Your task to perform on an android device: Add "apple airpods pro" to the cart on bestbuy.com Image 0: 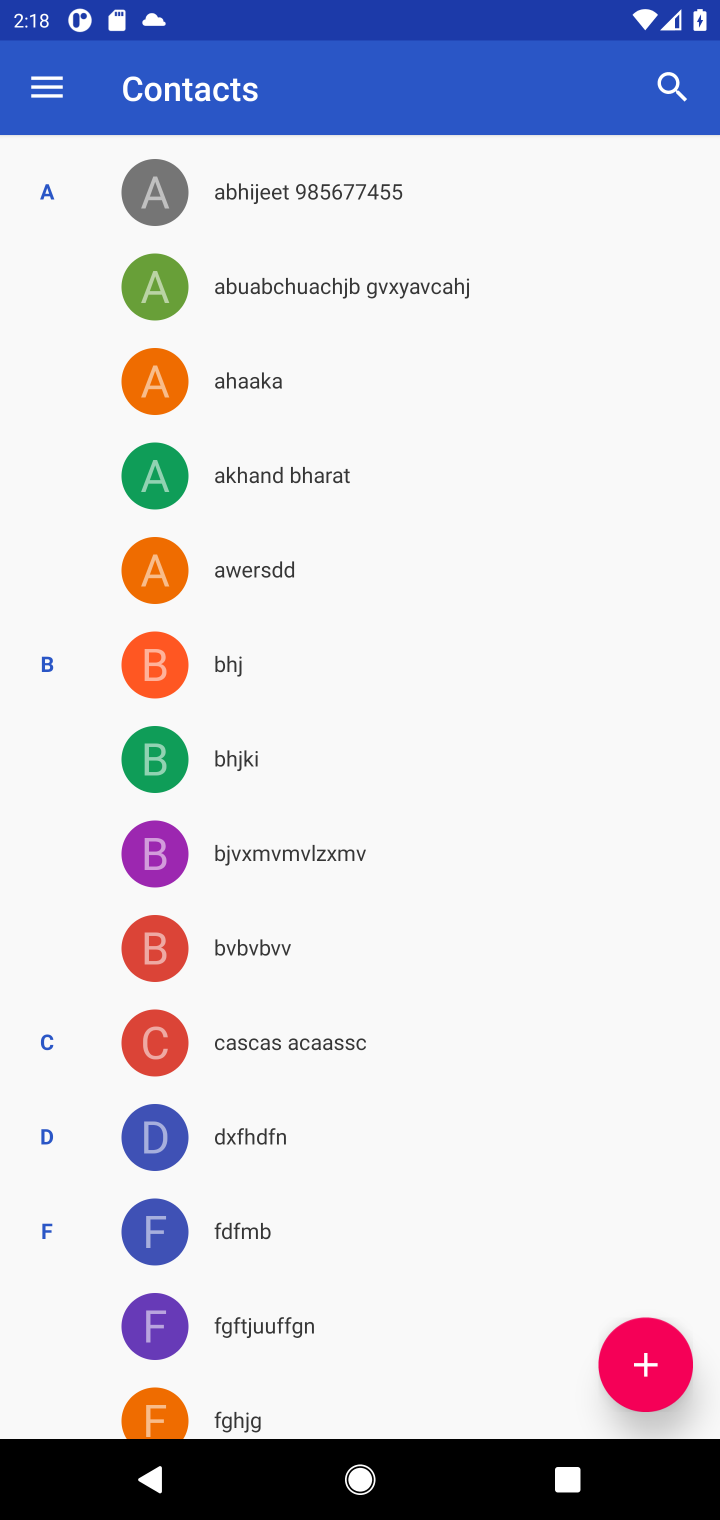
Step 0: press home button
Your task to perform on an android device: Add "apple airpods pro" to the cart on bestbuy.com Image 1: 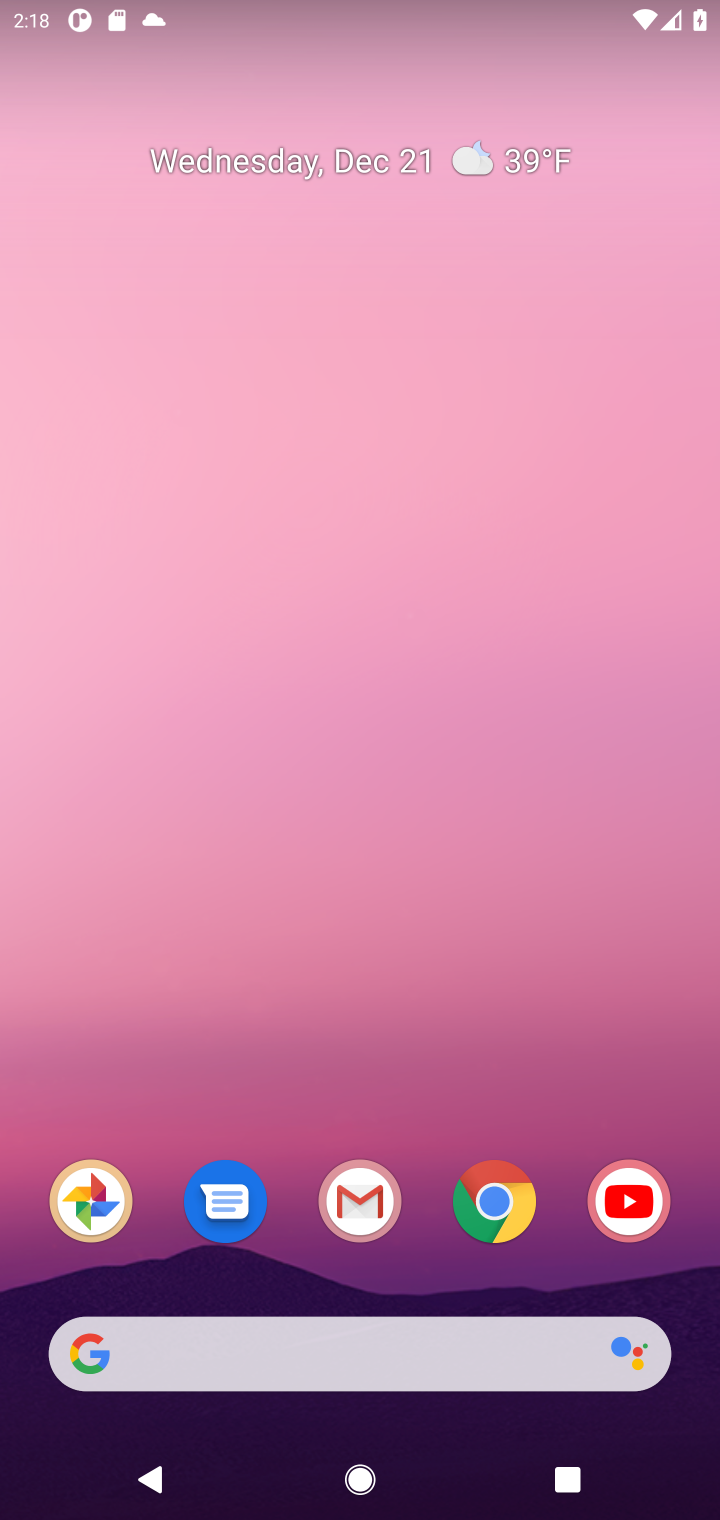
Step 1: click (499, 1202)
Your task to perform on an android device: Add "apple airpods pro" to the cart on bestbuy.com Image 2: 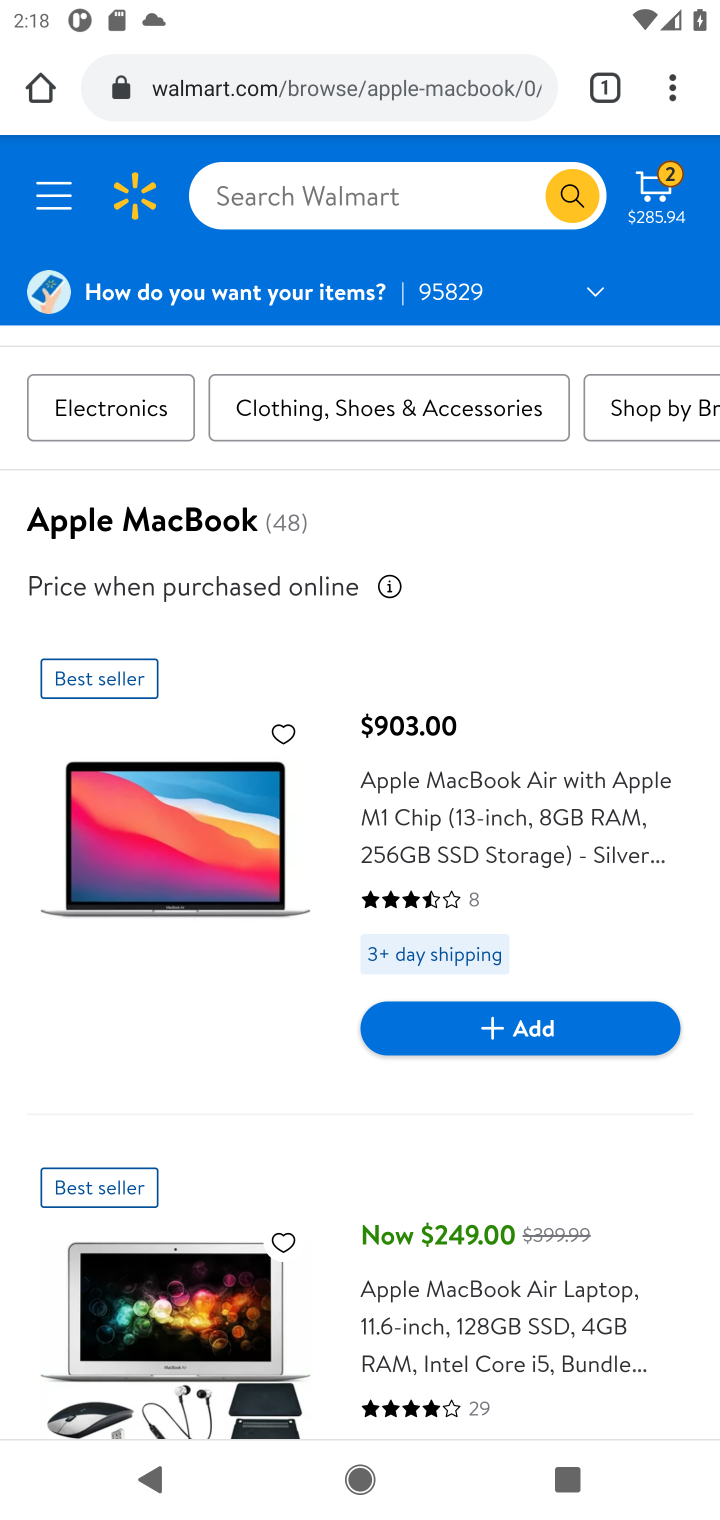
Step 2: click (303, 78)
Your task to perform on an android device: Add "apple airpods pro" to the cart on bestbuy.com Image 3: 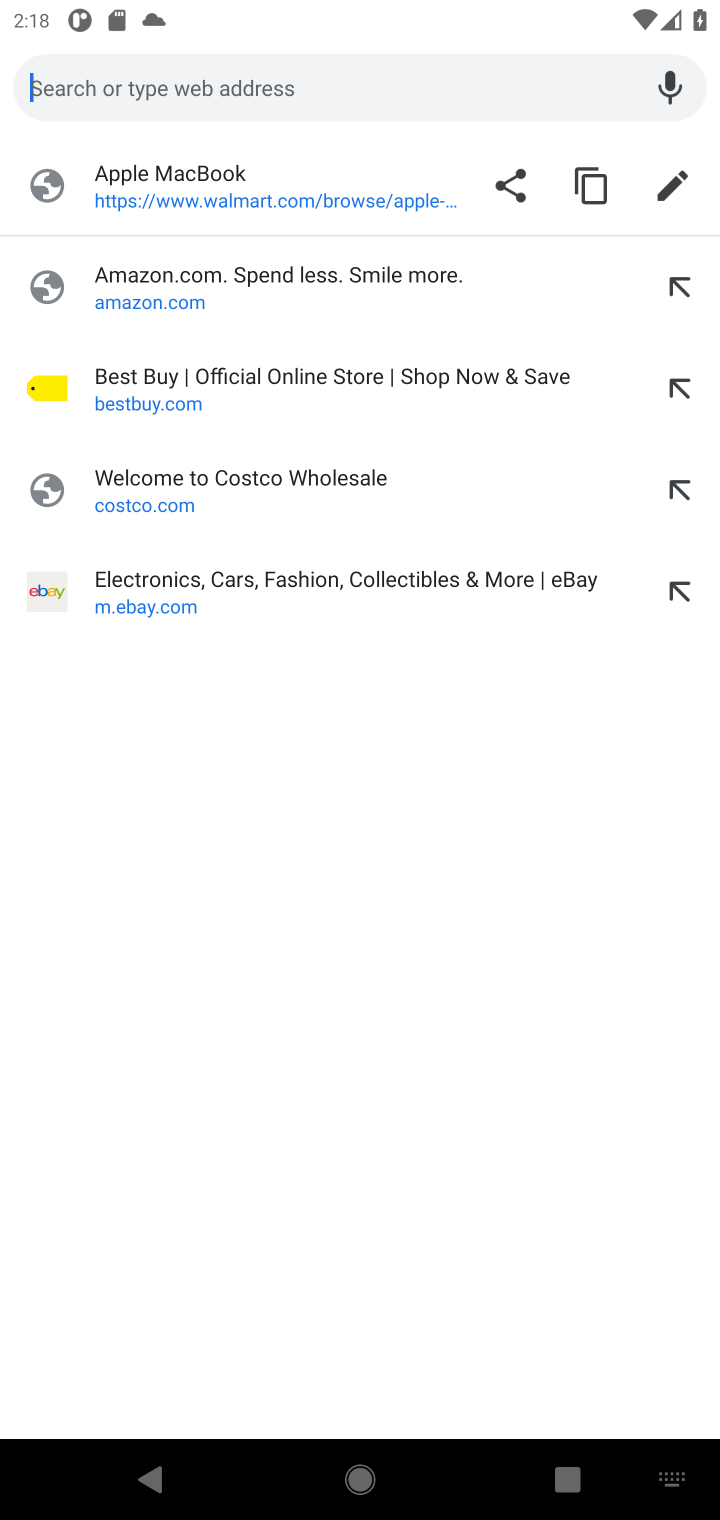
Step 3: click (141, 371)
Your task to perform on an android device: Add "apple airpods pro" to the cart on bestbuy.com Image 4: 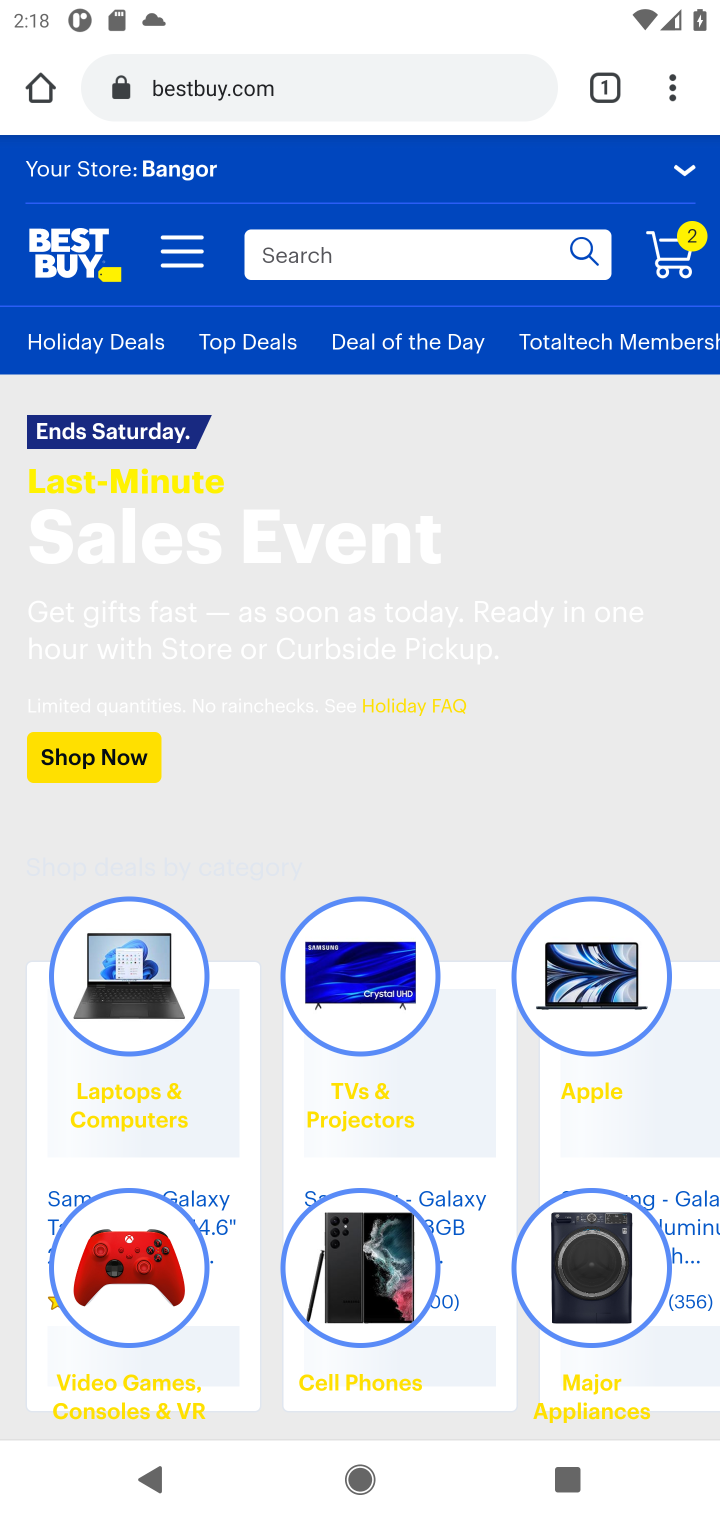
Step 4: click (346, 256)
Your task to perform on an android device: Add "apple airpods pro" to the cart on bestbuy.com Image 5: 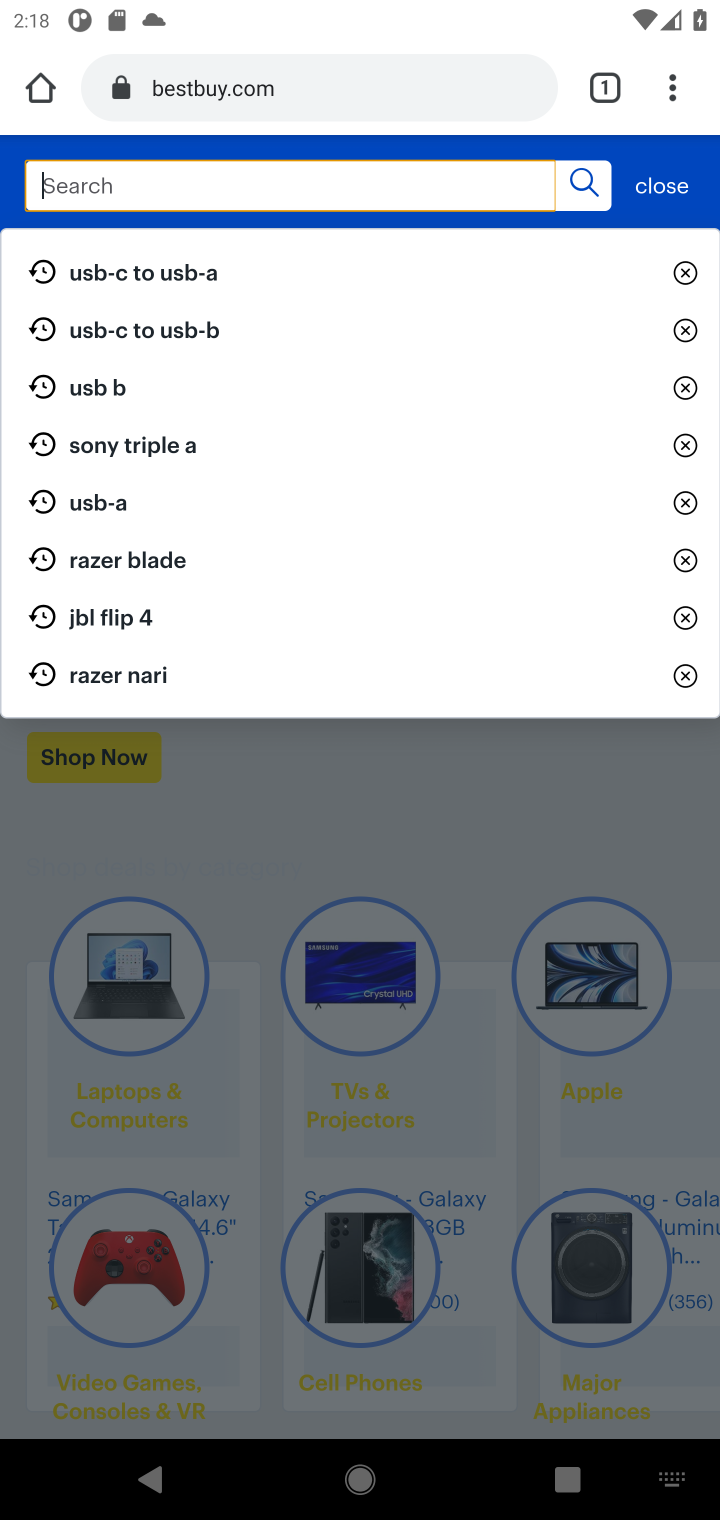
Step 5: type "apple airpods pro"
Your task to perform on an android device: Add "apple airpods pro" to the cart on bestbuy.com Image 6: 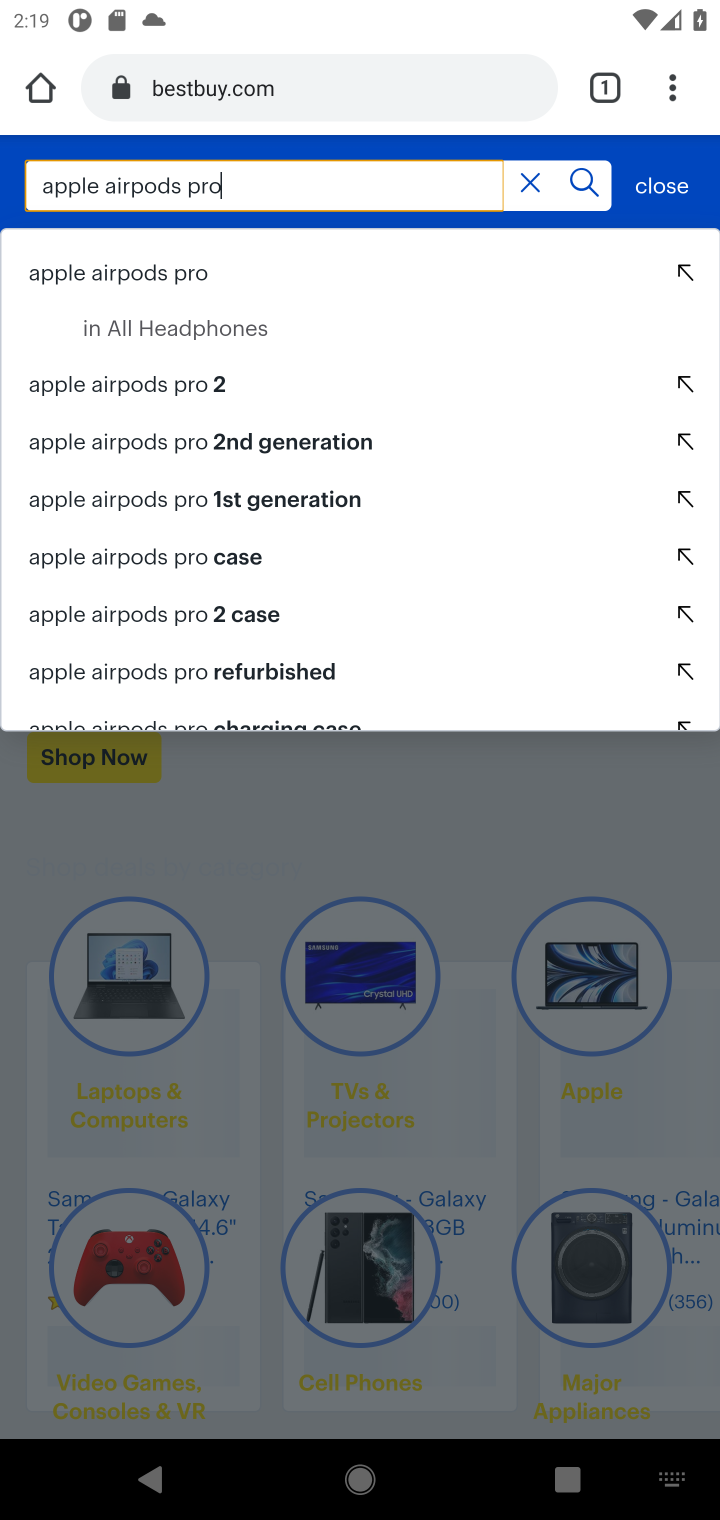
Step 6: click (92, 283)
Your task to perform on an android device: Add "apple airpods pro" to the cart on bestbuy.com Image 7: 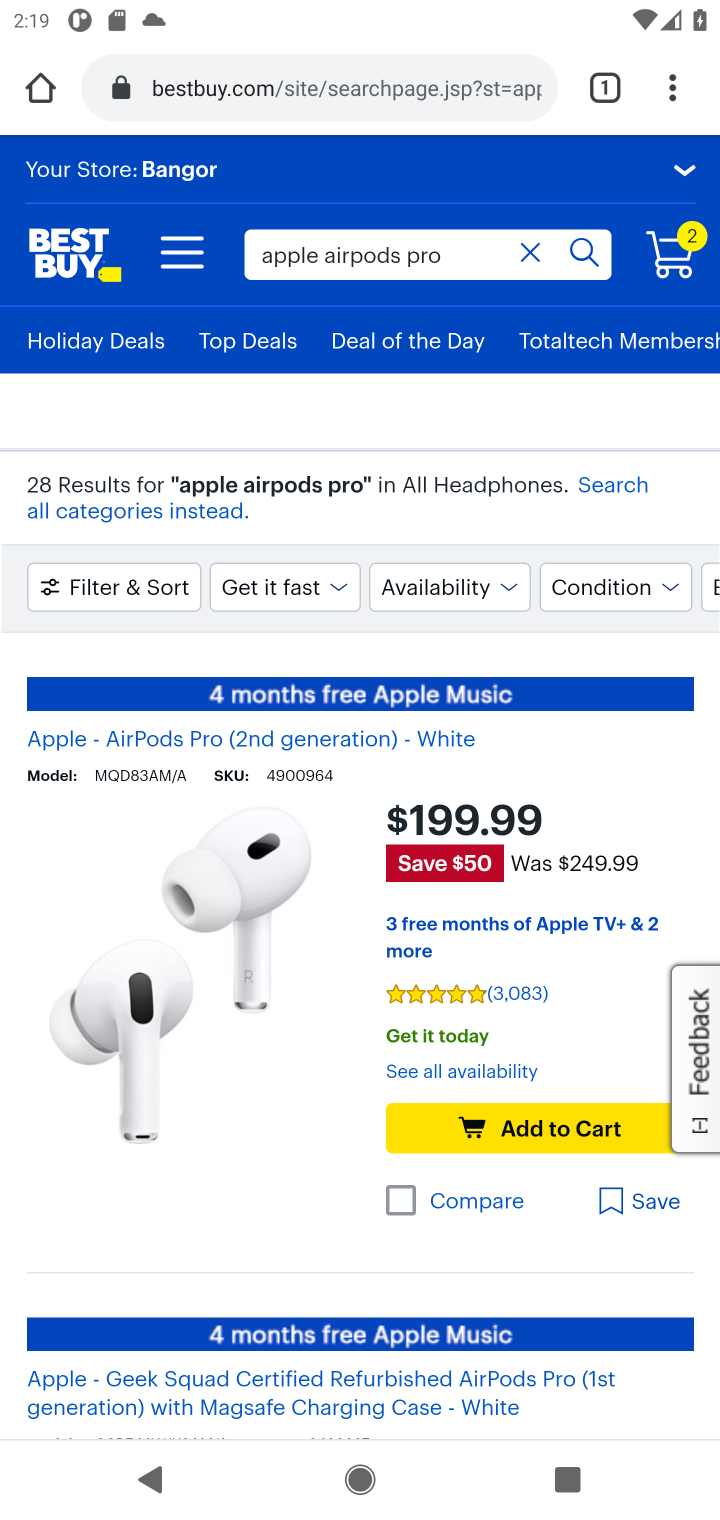
Step 7: click (511, 1124)
Your task to perform on an android device: Add "apple airpods pro" to the cart on bestbuy.com Image 8: 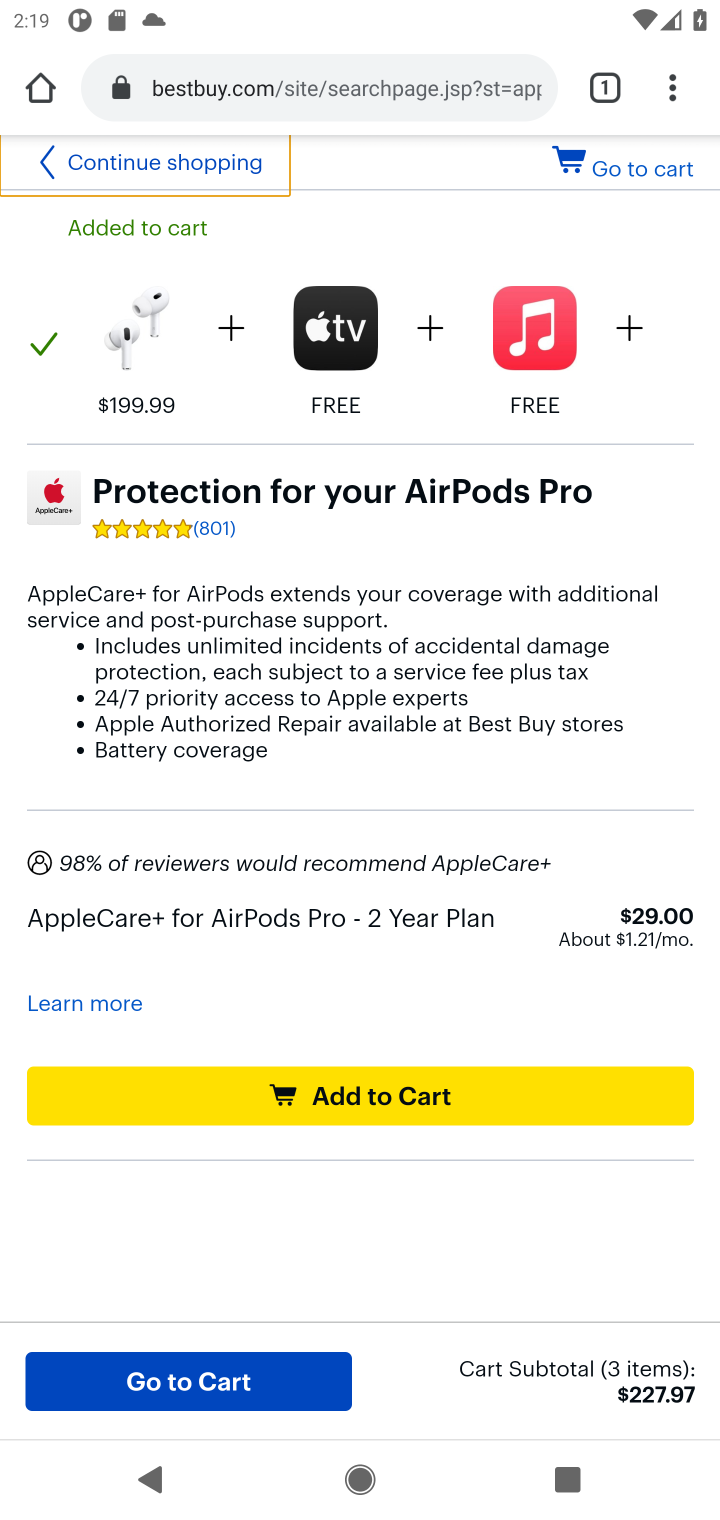
Step 8: task complete